Your task to perform on an android device: show emergency info Image 0: 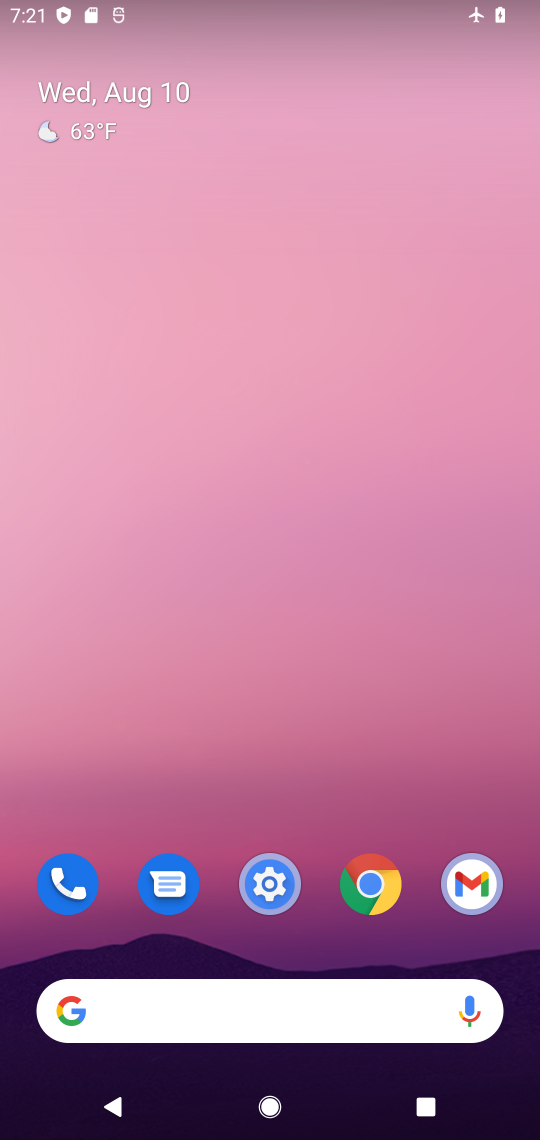
Step 0: click (278, 884)
Your task to perform on an android device: show emergency info Image 1: 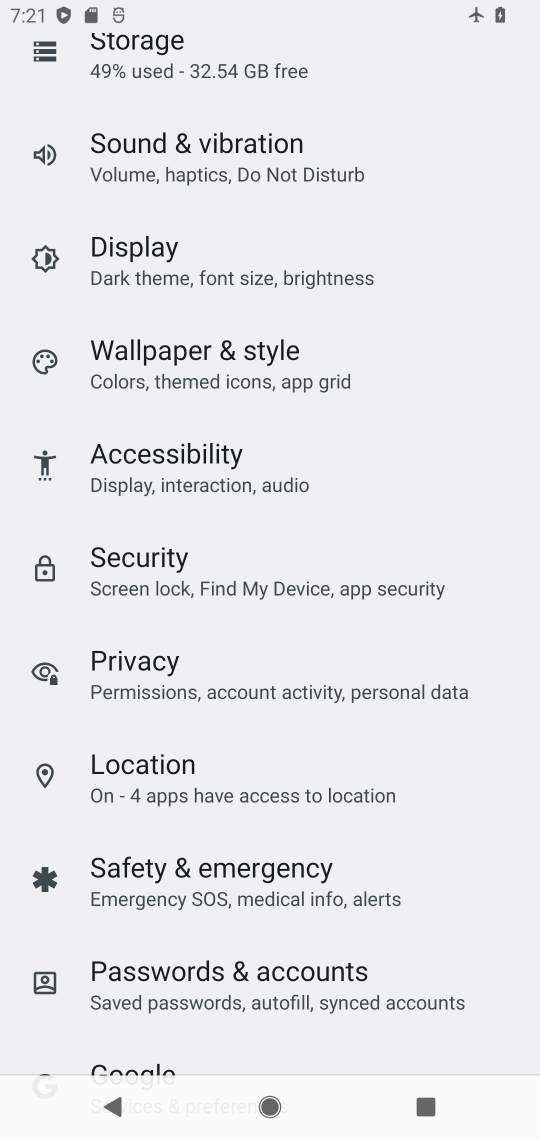
Step 1: drag from (364, 921) to (344, 247)
Your task to perform on an android device: show emergency info Image 2: 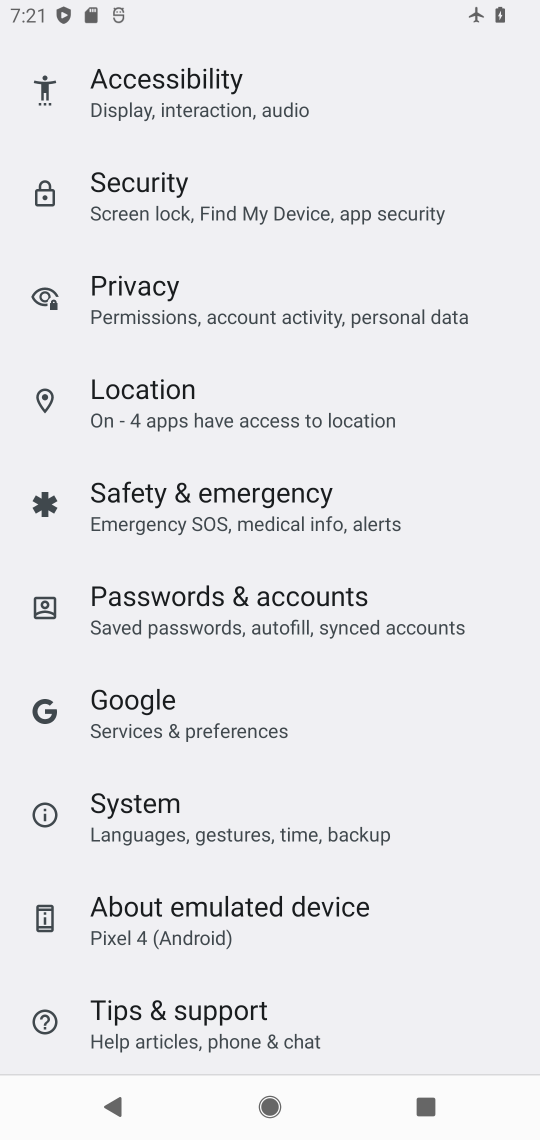
Step 2: click (239, 896)
Your task to perform on an android device: show emergency info Image 3: 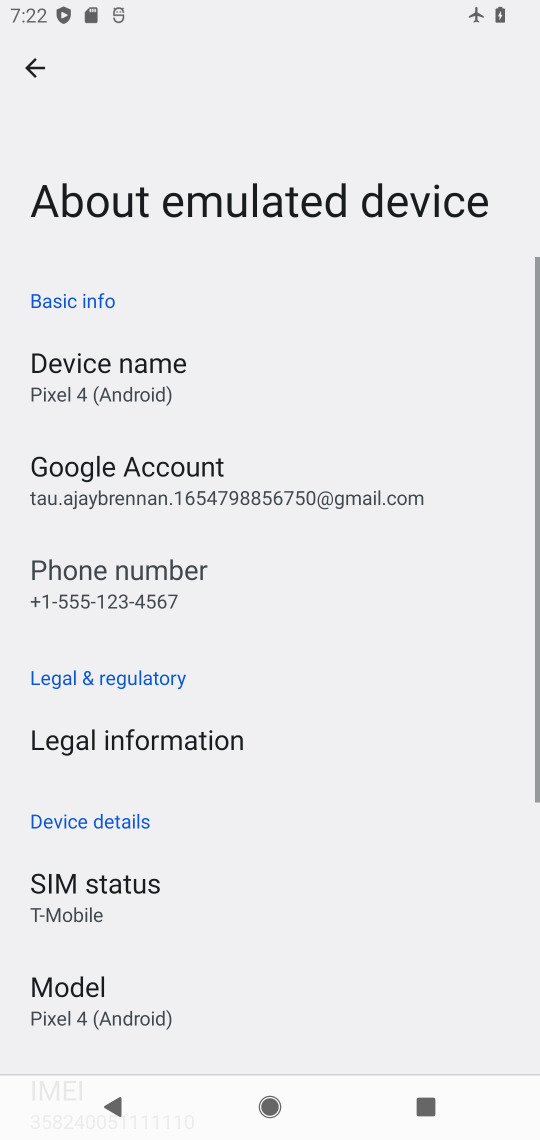
Step 3: click (134, 581)
Your task to perform on an android device: show emergency info Image 4: 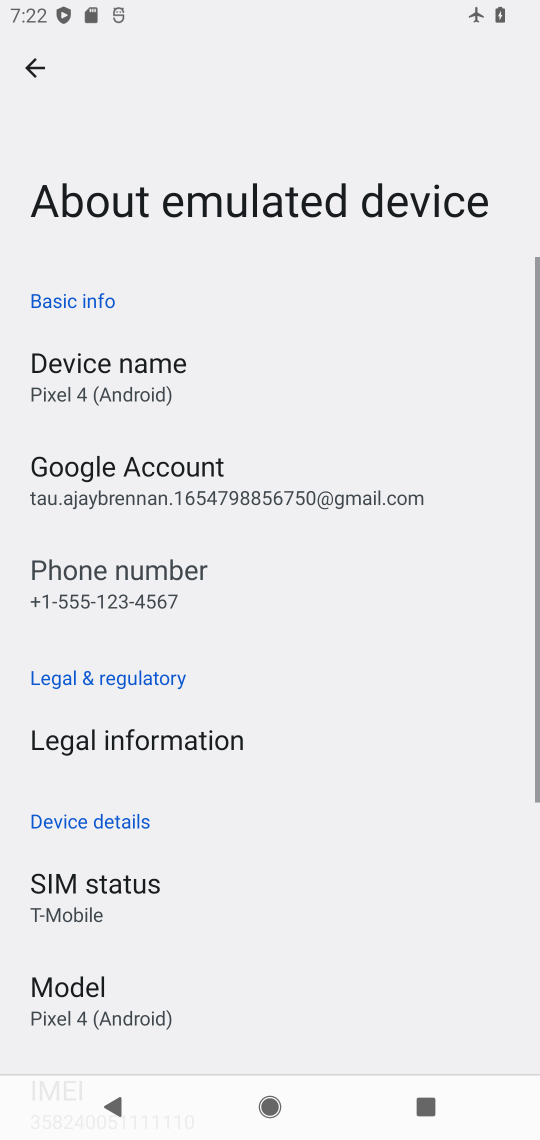
Step 4: click (187, 732)
Your task to perform on an android device: show emergency info Image 5: 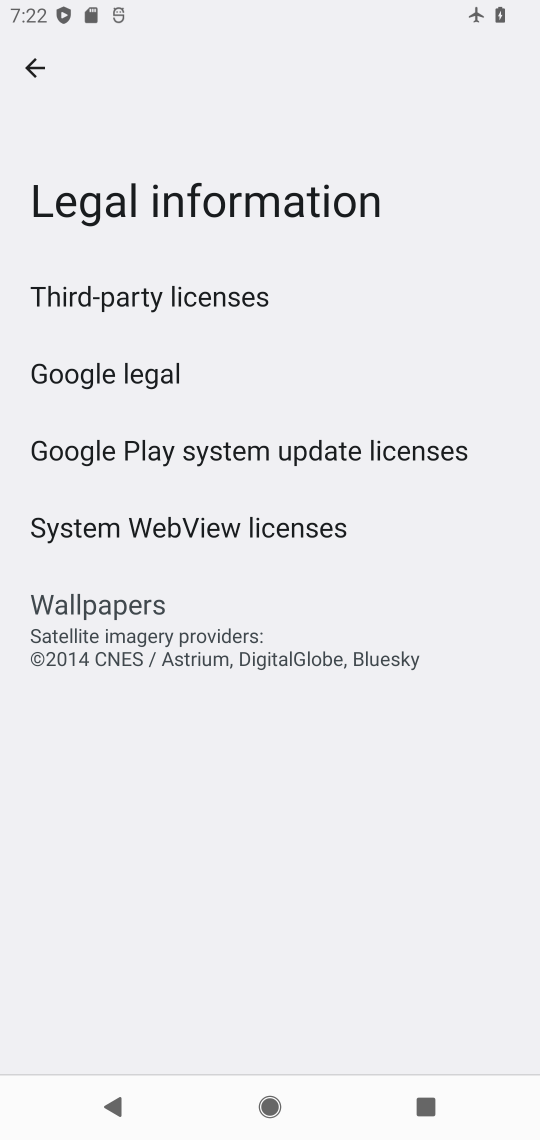
Step 5: click (39, 69)
Your task to perform on an android device: show emergency info Image 6: 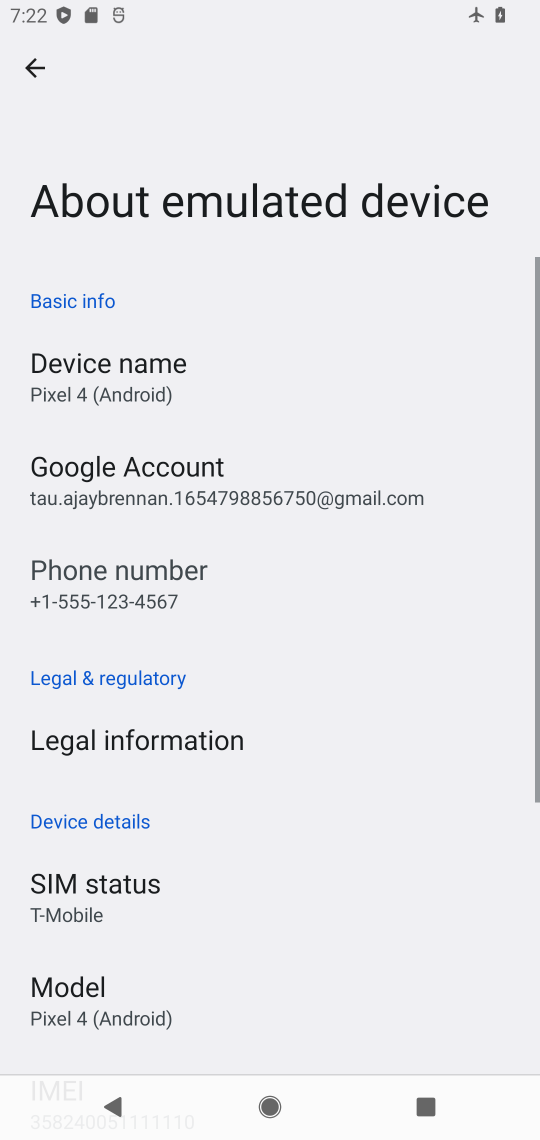
Step 6: task complete